Your task to perform on an android device: create a new album in the google photos Image 0: 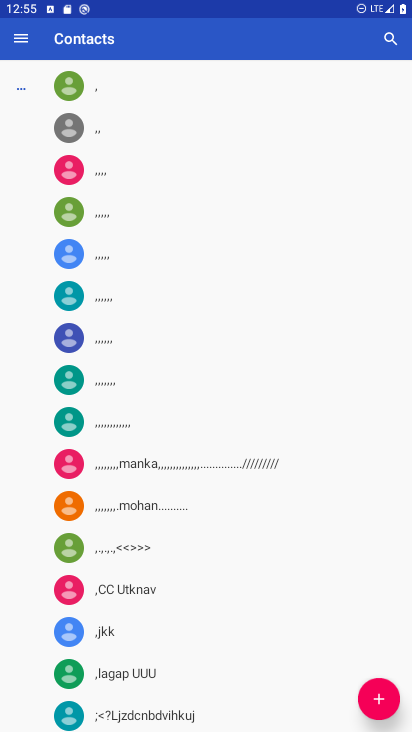
Step 0: press home button
Your task to perform on an android device: create a new album in the google photos Image 1: 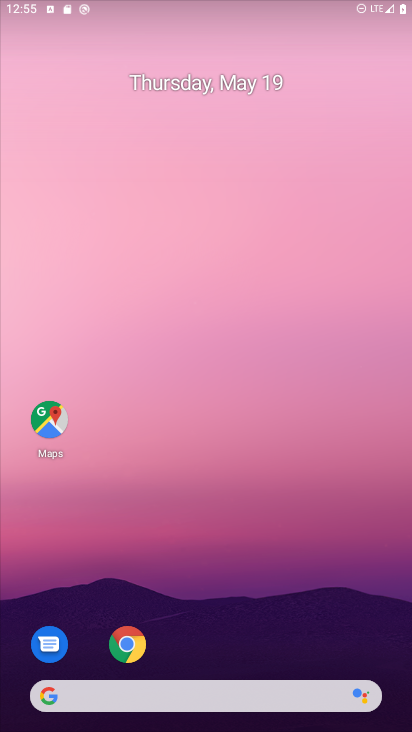
Step 1: drag from (347, 572) to (249, 0)
Your task to perform on an android device: create a new album in the google photos Image 2: 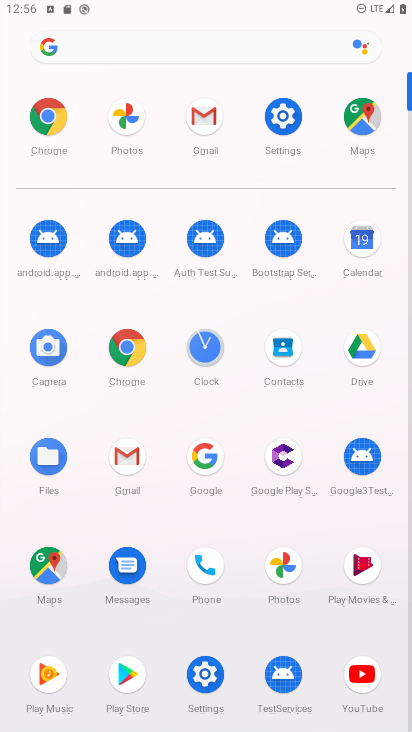
Step 2: click (284, 569)
Your task to perform on an android device: create a new album in the google photos Image 3: 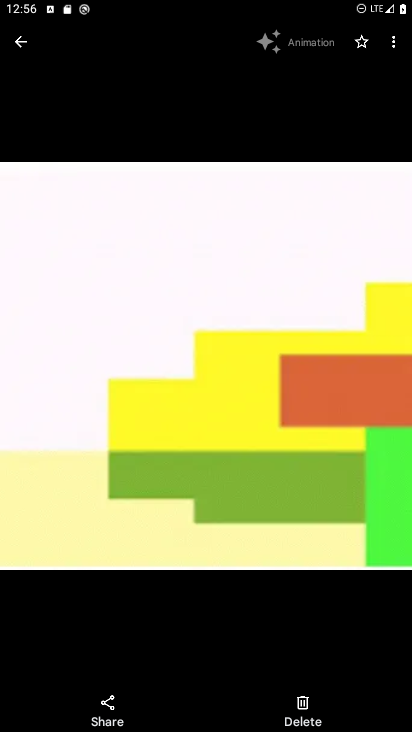
Step 3: press back button
Your task to perform on an android device: create a new album in the google photos Image 4: 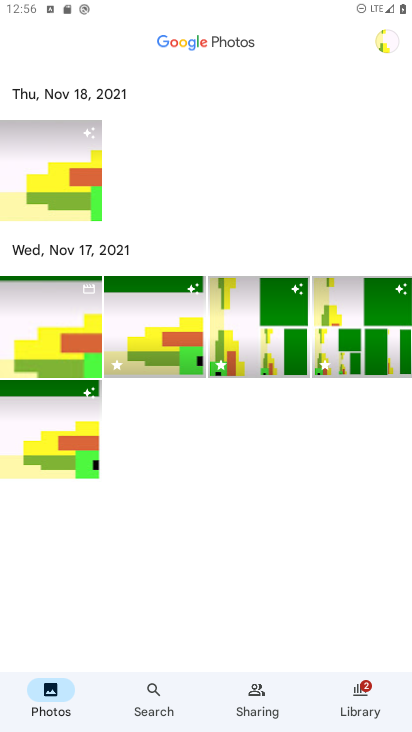
Step 4: click (61, 191)
Your task to perform on an android device: create a new album in the google photos Image 5: 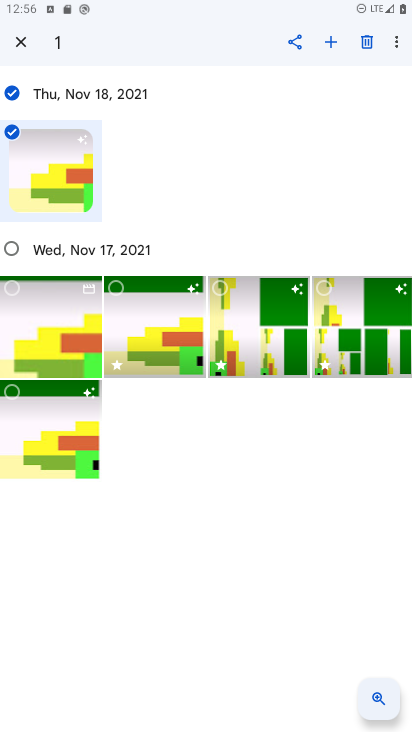
Step 5: click (329, 36)
Your task to perform on an android device: create a new album in the google photos Image 6: 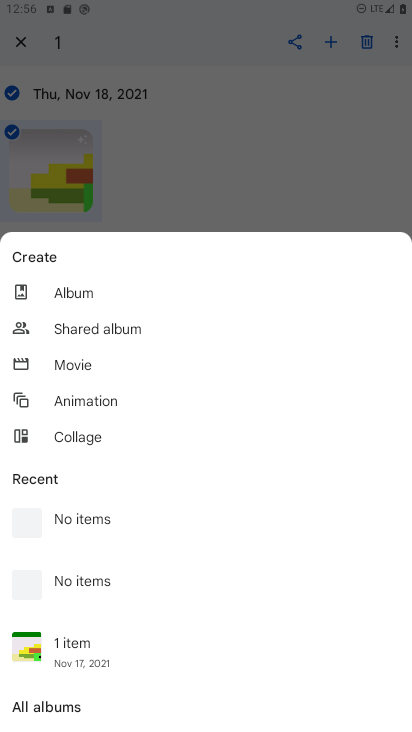
Step 6: click (105, 290)
Your task to perform on an android device: create a new album in the google photos Image 7: 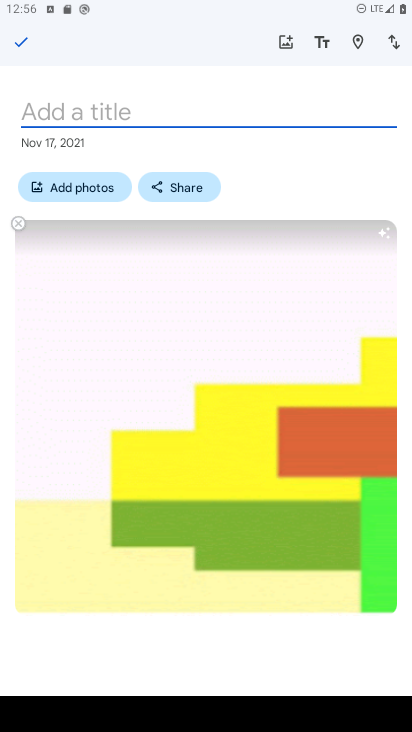
Step 7: type "MN"
Your task to perform on an android device: create a new album in the google photos Image 8: 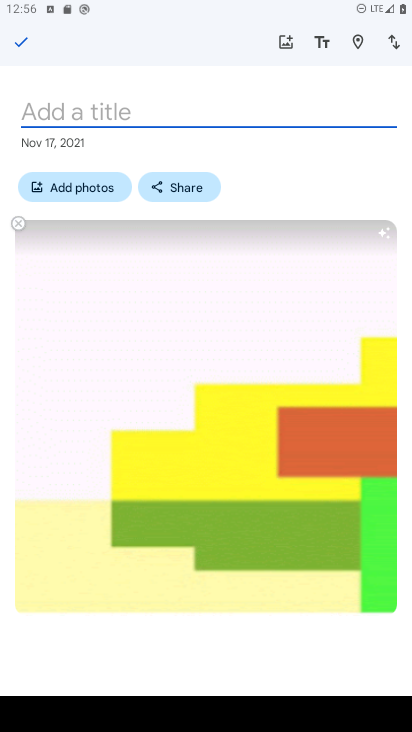
Step 8: click (21, 37)
Your task to perform on an android device: create a new album in the google photos Image 9: 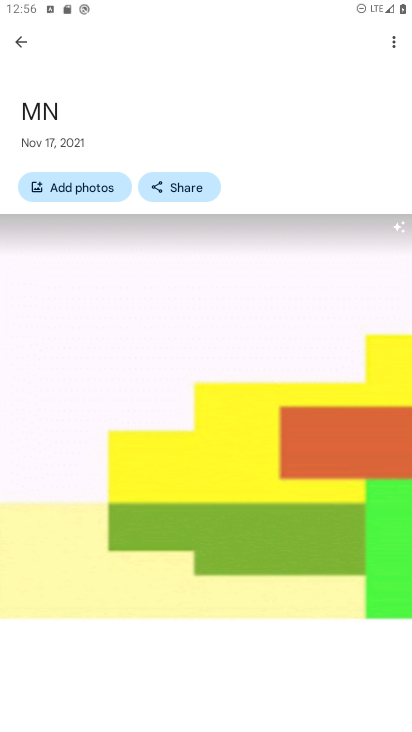
Step 9: task complete